Your task to perform on an android device: move a message to another label in the gmail app Image 0: 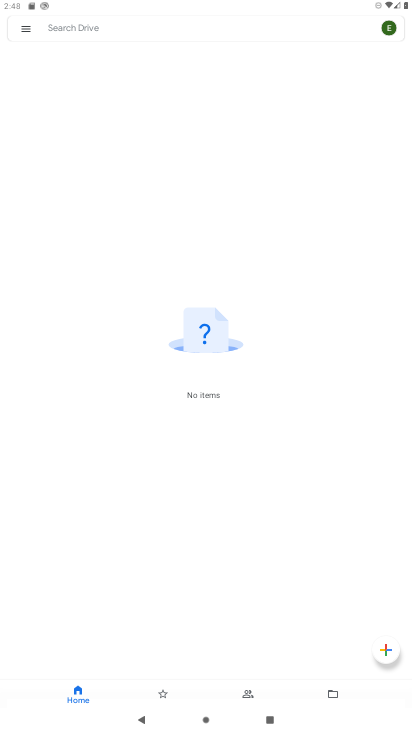
Step 0: press home button
Your task to perform on an android device: move a message to another label in the gmail app Image 1: 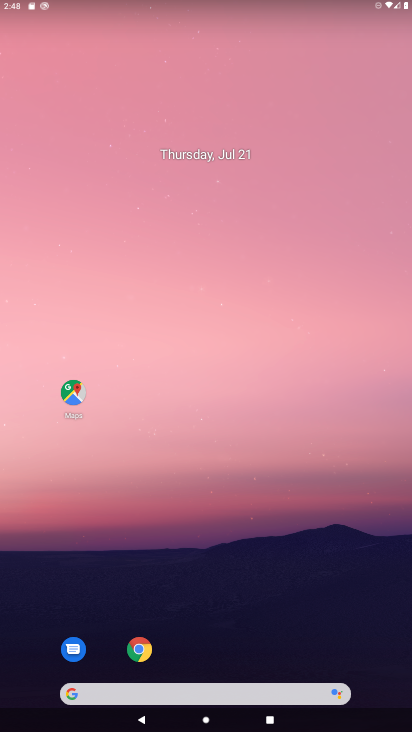
Step 1: drag from (340, 565) to (264, 94)
Your task to perform on an android device: move a message to another label in the gmail app Image 2: 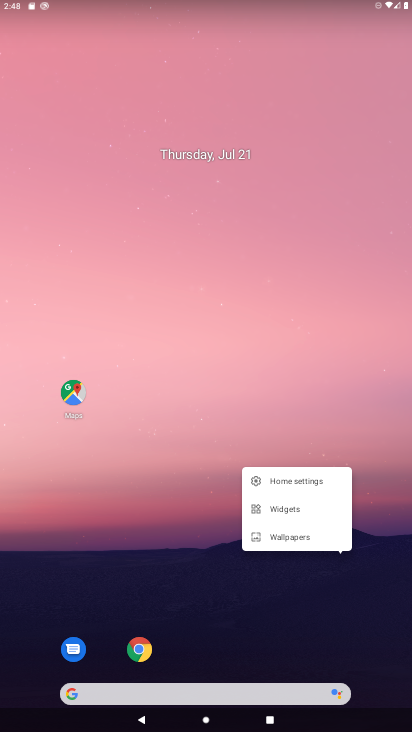
Step 2: click (178, 517)
Your task to perform on an android device: move a message to another label in the gmail app Image 3: 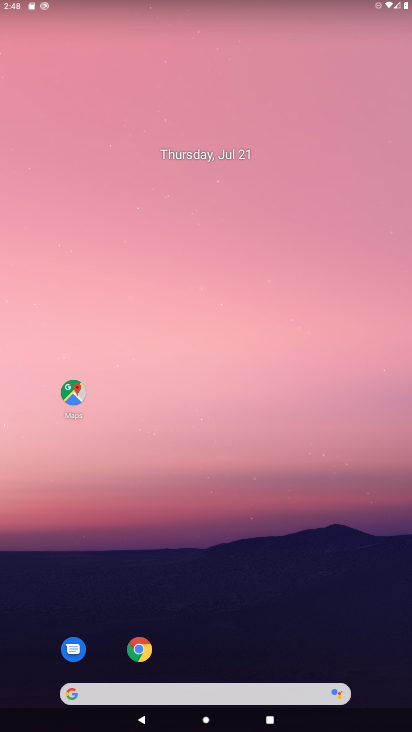
Step 3: drag from (202, 624) to (128, 25)
Your task to perform on an android device: move a message to another label in the gmail app Image 4: 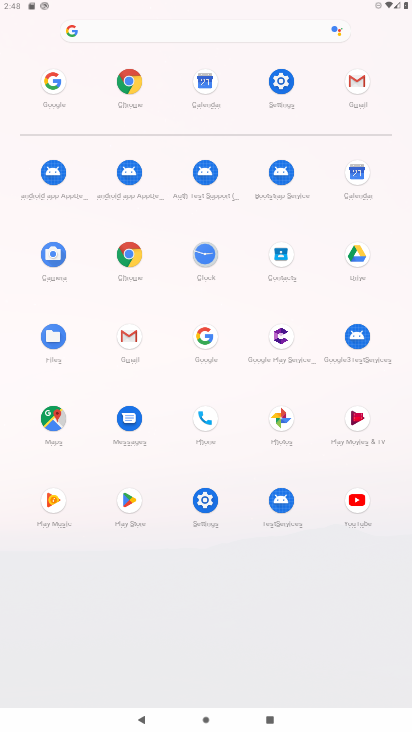
Step 4: click (350, 76)
Your task to perform on an android device: move a message to another label in the gmail app Image 5: 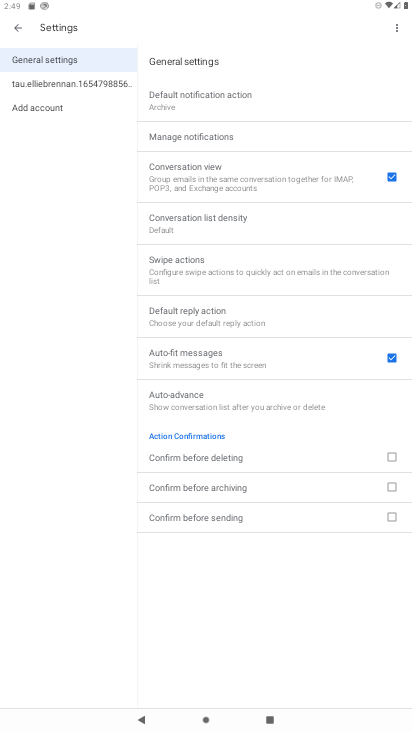
Step 5: click (13, 25)
Your task to perform on an android device: move a message to another label in the gmail app Image 6: 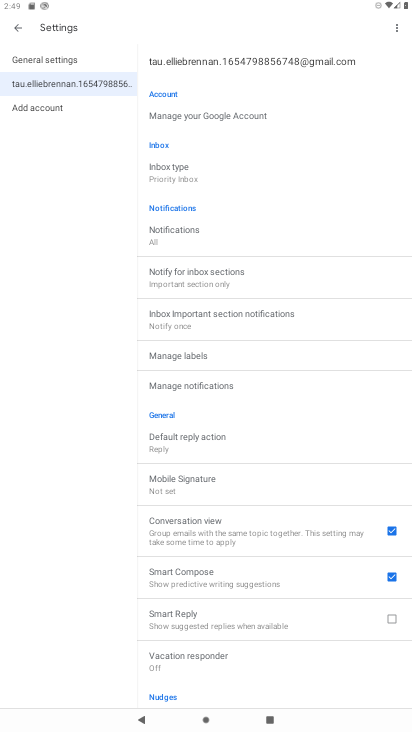
Step 6: click (13, 26)
Your task to perform on an android device: move a message to another label in the gmail app Image 7: 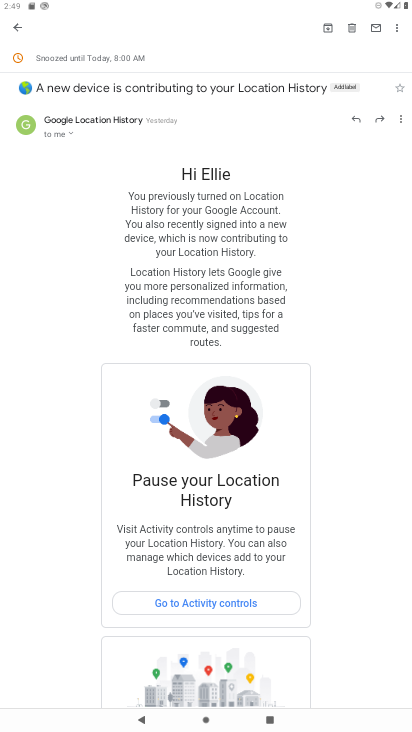
Step 7: click (7, 19)
Your task to perform on an android device: move a message to another label in the gmail app Image 8: 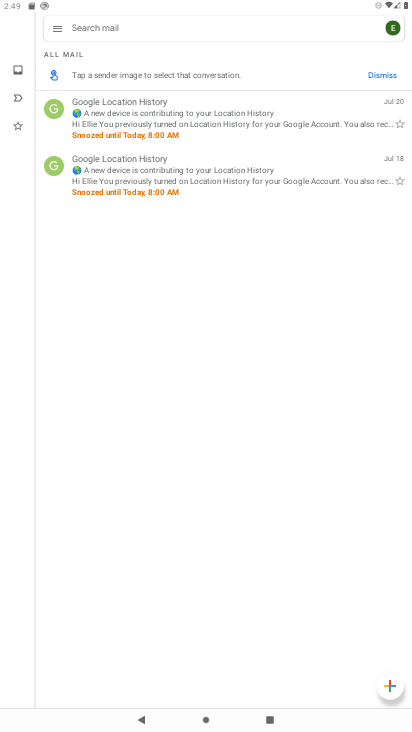
Step 8: click (185, 118)
Your task to perform on an android device: move a message to another label in the gmail app Image 9: 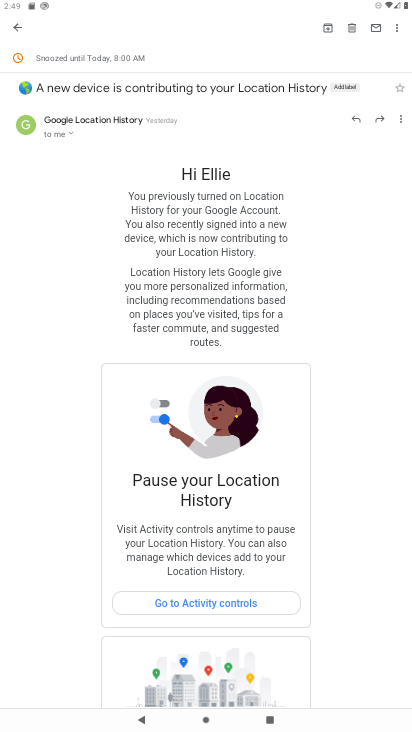
Step 9: click (392, 27)
Your task to perform on an android device: move a message to another label in the gmail app Image 10: 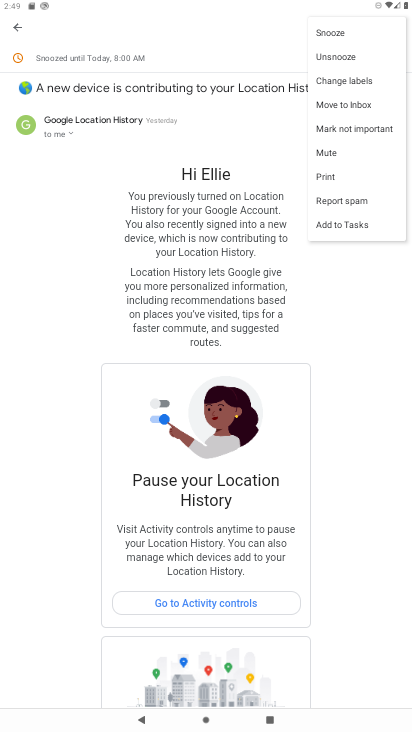
Step 10: click (340, 87)
Your task to perform on an android device: move a message to another label in the gmail app Image 11: 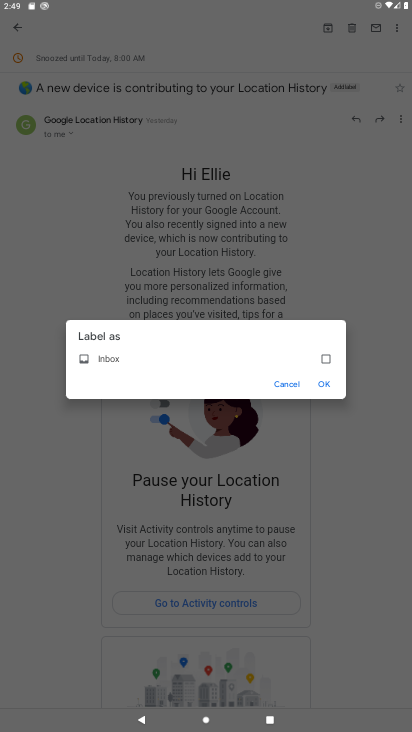
Step 11: click (322, 359)
Your task to perform on an android device: move a message to another label in the gmail app Image 12: 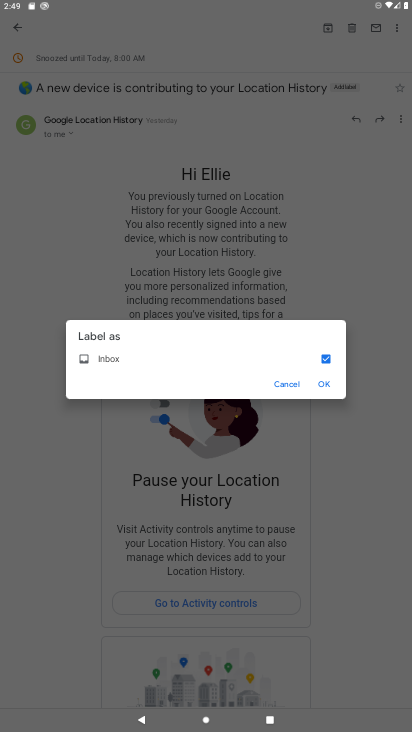
Step 12: click (320, 385)
Your task to perform on an android device: move a message to another label in the gmail app Image 13: 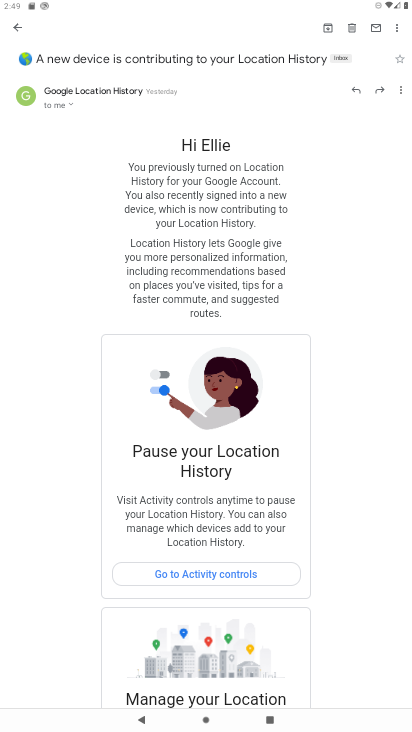
Step 13: task complete